Your task to perform on an android device: open app "Mercado Libre" (install if not already installed) and enter user name: "tolerating@yahoo.com" and password: "Kepler" Image 0: 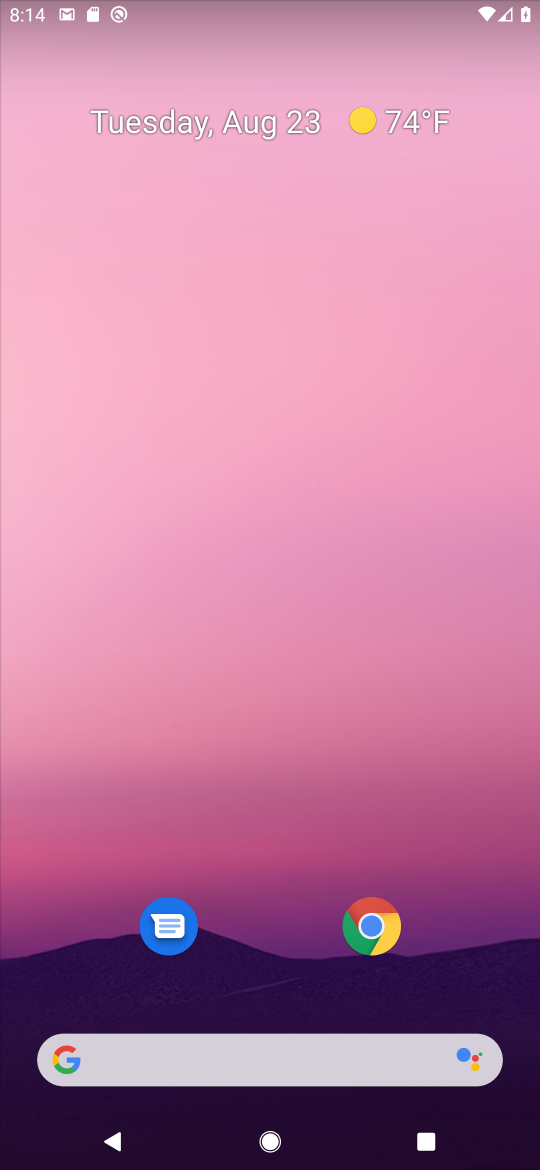
Step 0: drag from (265, 960) to (292, 0)
Your task to perform on an android device: open app "Mercado Libre" (install if not already installed) and enter user name: "tolerating@yahoo.com" and password: "Kepler" Image 1: 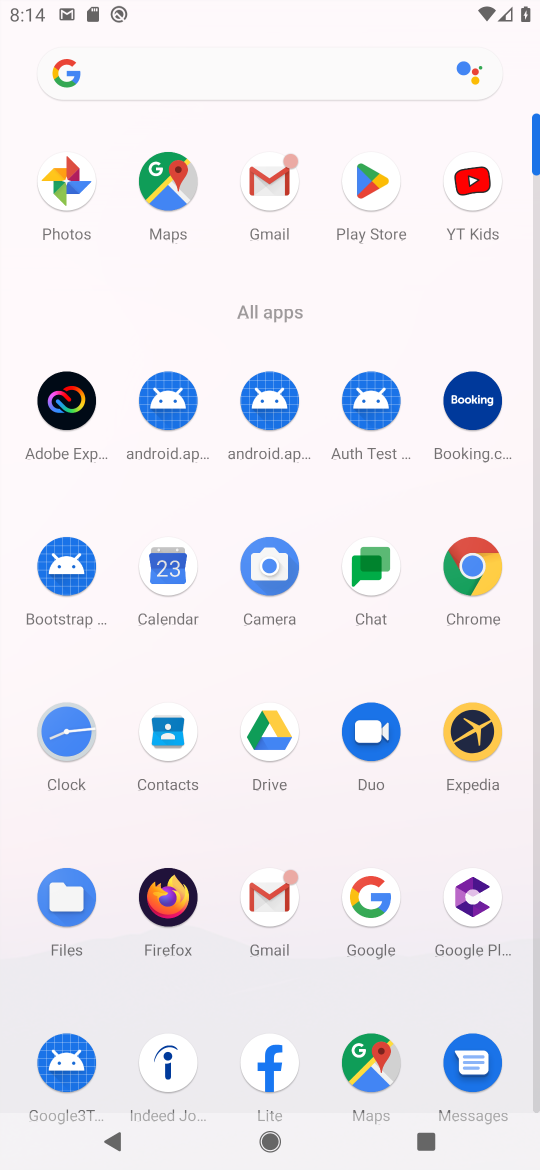
Step 1: click (389, 225)
Your task to perform on an android device: open app "Mercado Libre" (install if not already installed) and enter user name: "tolerating@yahoo.com" and password: "Kepler" Image 2: 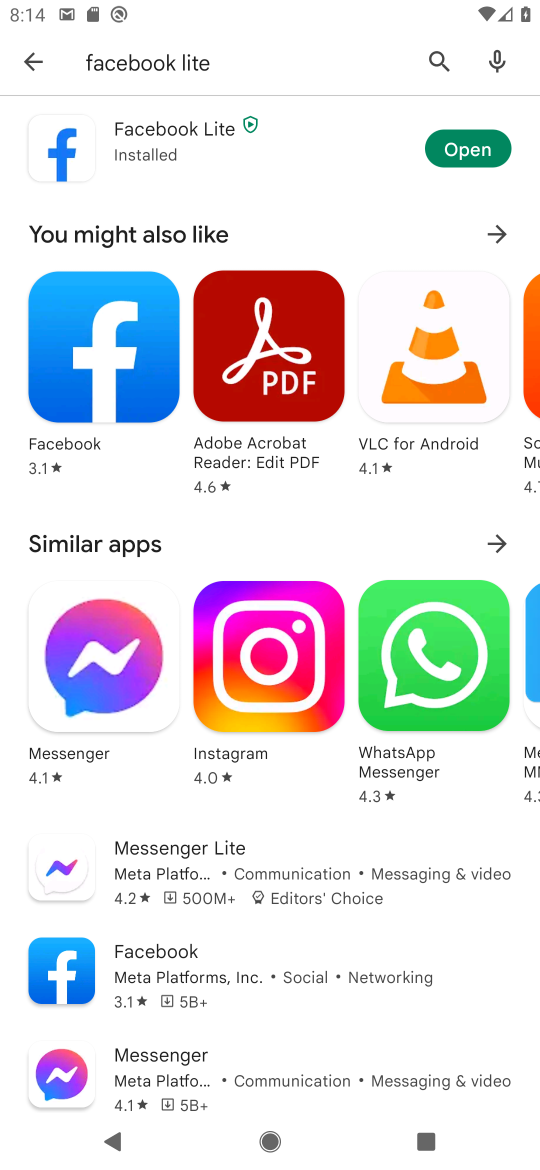
Step 2: click (239, 73)
Your task to perform on an android device: open app "Mercado Libre" (install if not already installed) and enter user name: "tolerating@yahoo.com" and password: "Kepler" Image 3: 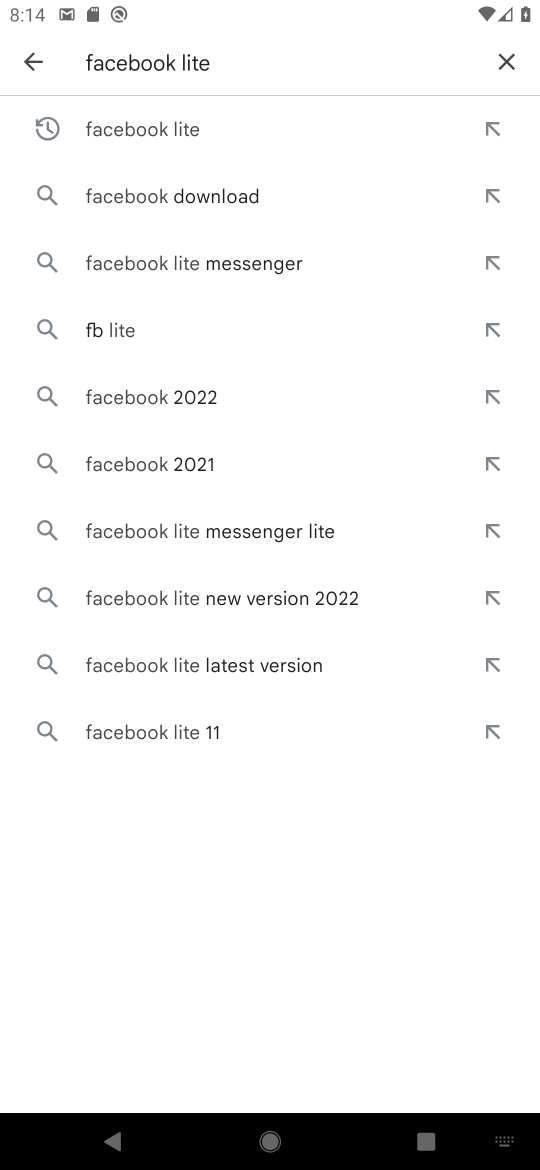
Step 3: click (512, 54)
Your task to perform on an android device: open app "Mercado Libre" (install if not already installed) and enter user name: "tolerating@yahoo.com" and password: "Kepler" Image 4: 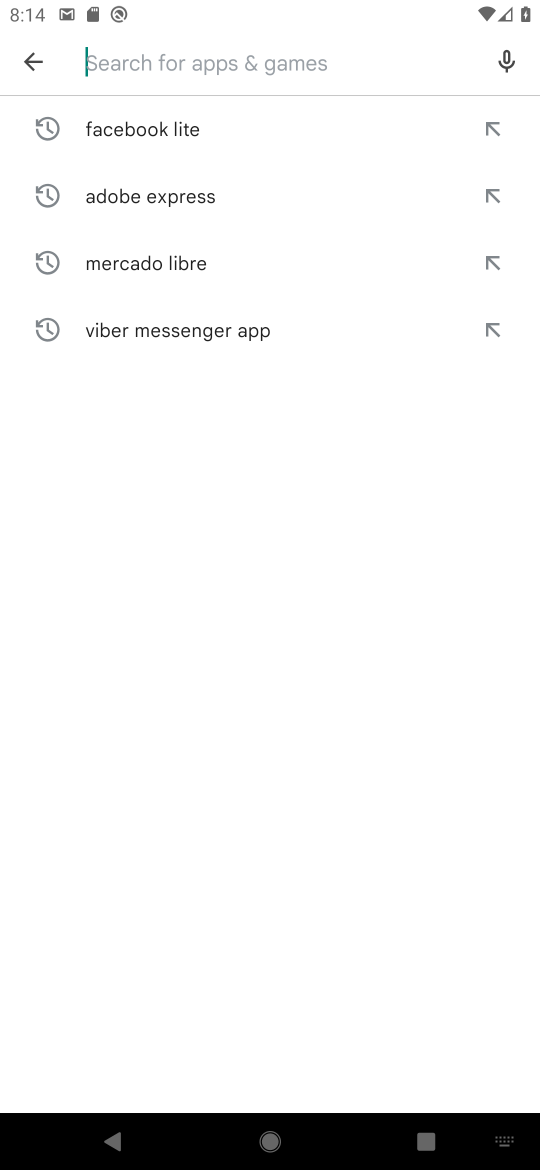
Step 4: type "mercado libre"
Your task to perform on an android device: open app "Mercado Libre" (install if not already installed) and enter user name: "tolerating@yahoo.com" and password: "Kepler" Image 5: 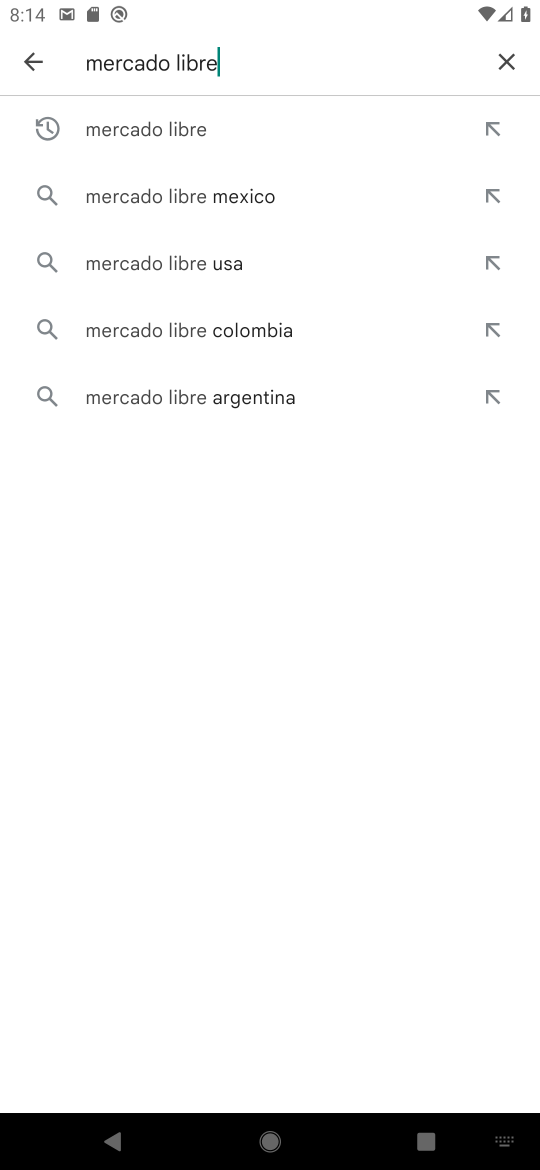
Step 5: click (188, 120)
Your task to perform on an android device: open app "Mercado Libre" (install if not already installed) and enter user name: "tolerating@yahoo.com" and password: "Kepler" Image 6: 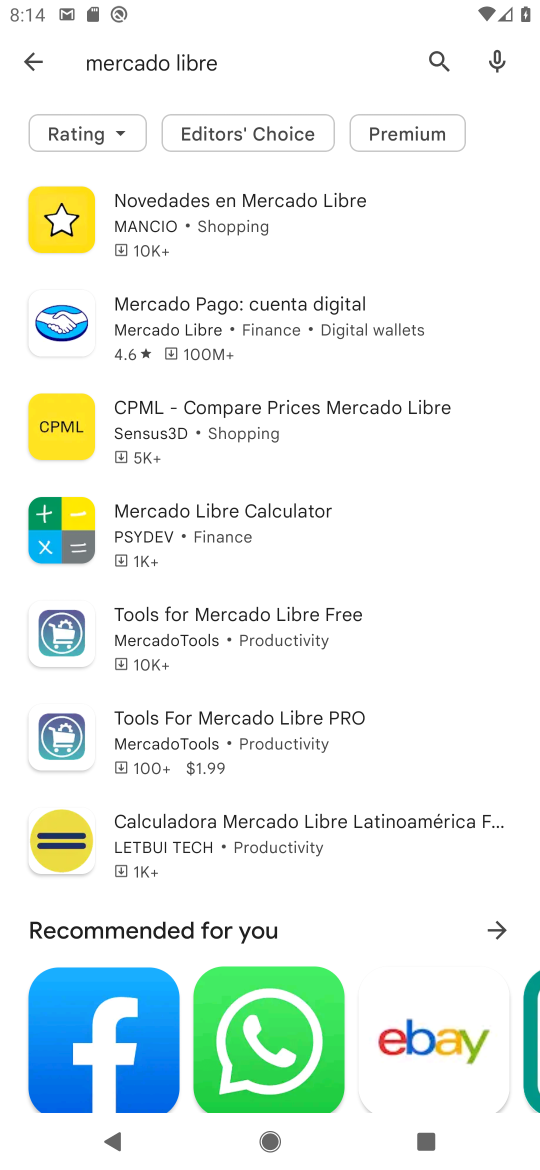
Step 6: task complete